Your task to perform on an android device: turn notification dots on Image 0: 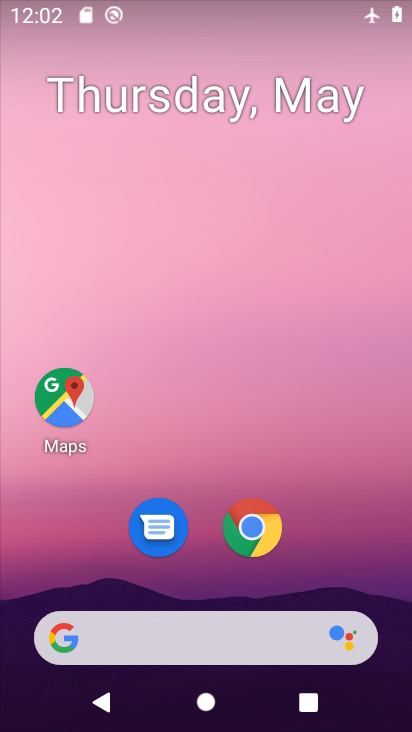
Step 0: drag from (213, 563) to (304, 89)
Your task to perform on an android device: turn notification dots on Image 1: 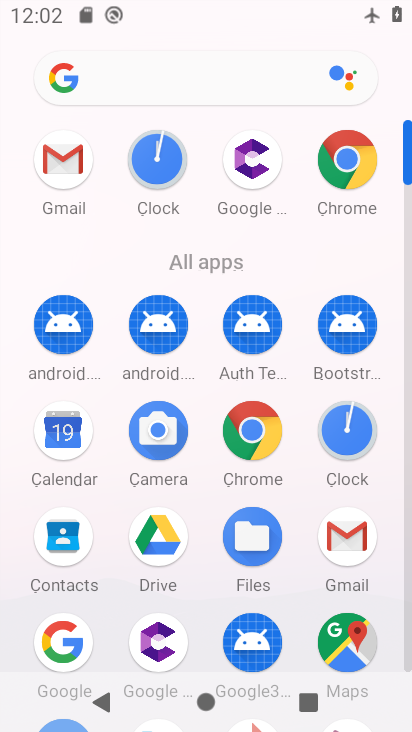
Step 1: drag from (214, 595) to (279, 134)
Your task to perform on an android device: turn notification dots on Image 2: 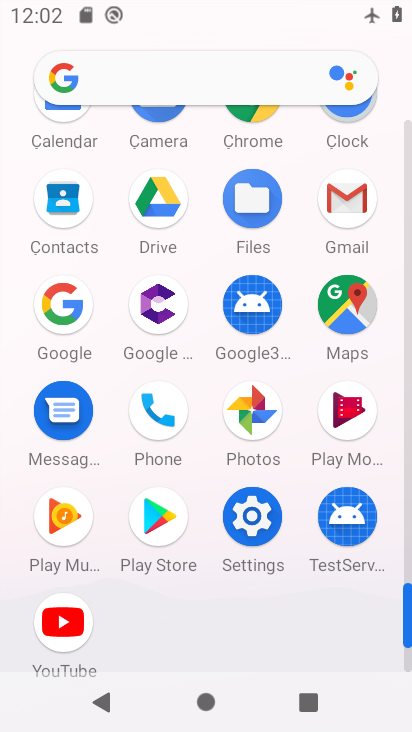
Step 2: click (244, 517)
Your task to perform on an android device: turn notification dots on Image 3: 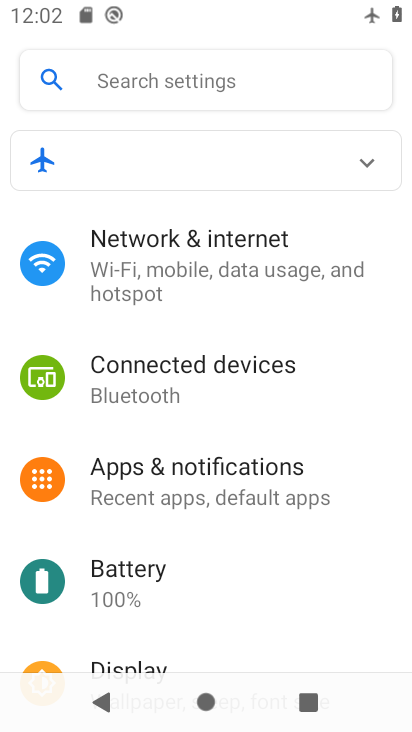
Step 3: click (213, 489)
Your task to perform on an android device: turn notification dots on Image 4: 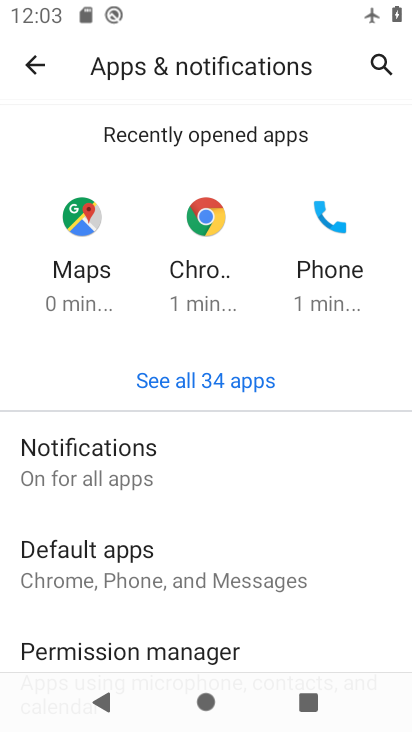
Step 4: click (144, 472)
Your task to perform on an android device: turn notification dots on Image 5: 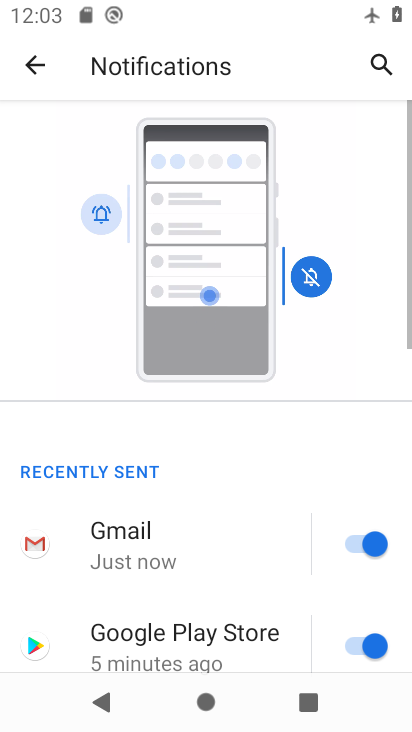
Step 5: drag from (173, 634) to (283, 179)
Your task to perform on an android device: turn notification dots on Image 6: 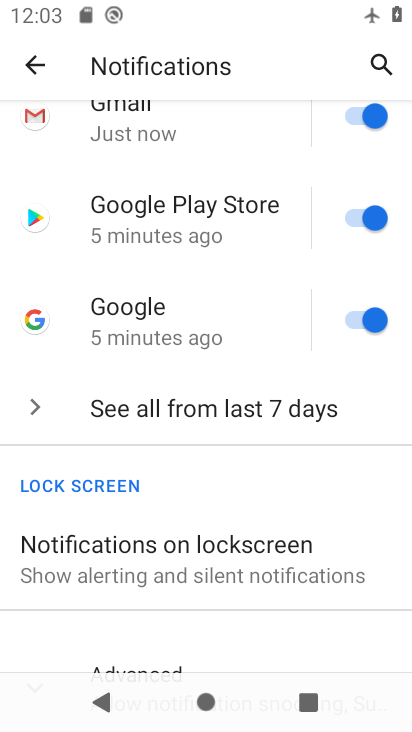
Step 6: drag from (198, 511) to (290, 105)
Your task to perform on an android device: turn notification dots on Image 7: 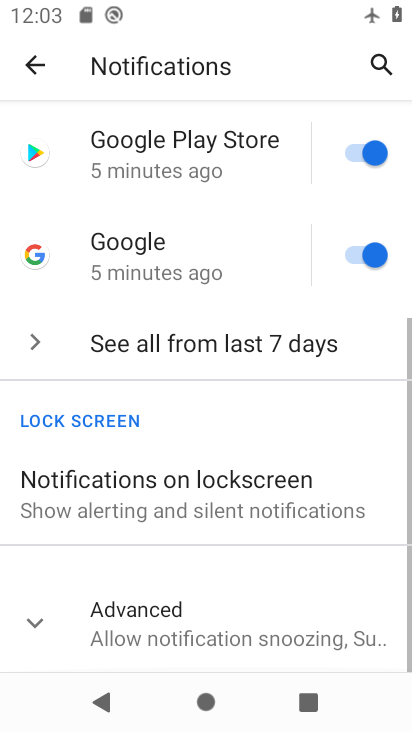
Step 7: click (156, 623)
Your task to perform on an android device: turn notification dots on Image 8: 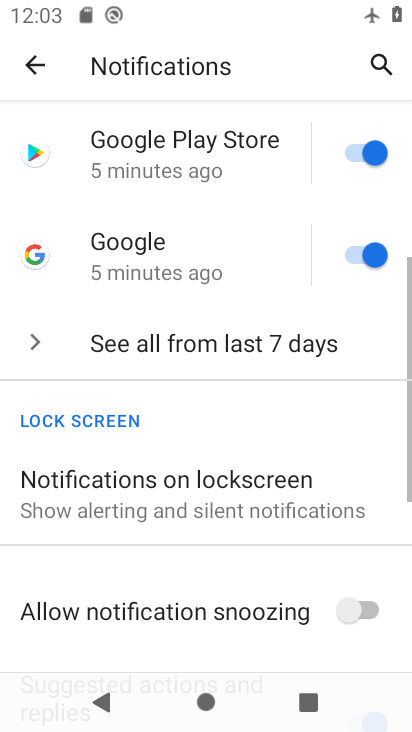
Step 8: task complete